Your task to perform on an android device: What's the weather going to be tomorrow? Image 0: 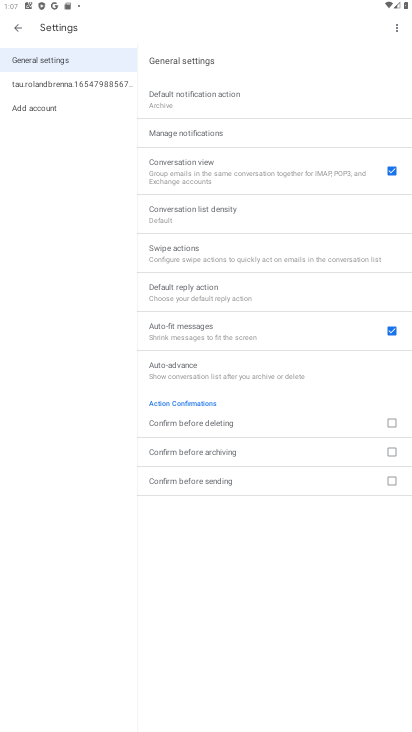
Step 0: press home button
Your task to perform on an android device: What's the weather going to be tomorrow? Image 1: 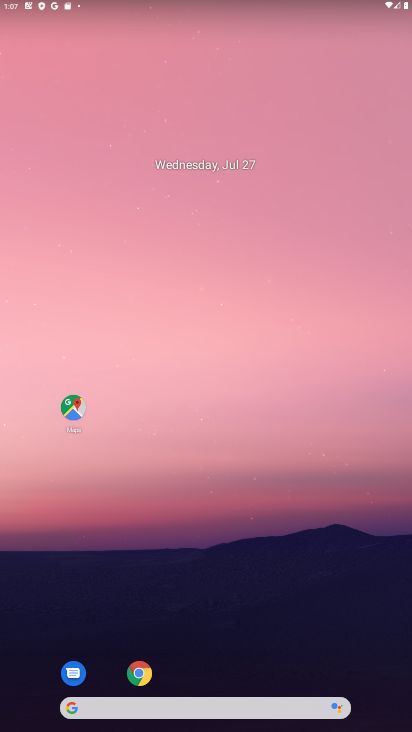
Step 1: click (152, 705)
Your task to perform on an android device: What's the weather going to be tomorrow? Image 2: 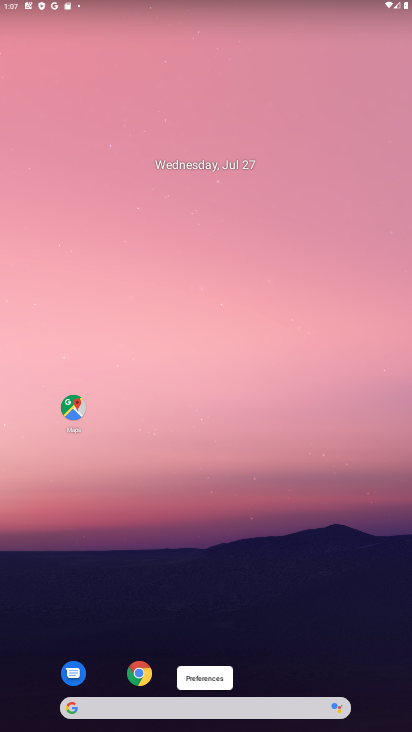
Step 2: click (152, 703)
Your task to perform on an android device: What's the weather going to be tomorrow? Image 3: 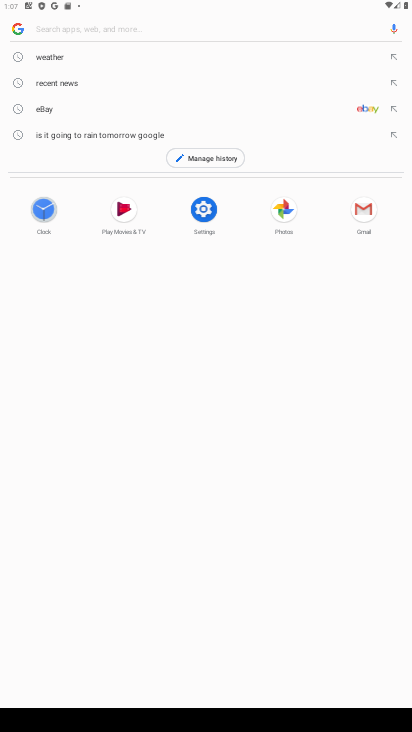
Step 3: click (48, 65)
Your task to perform on an android device: What's the weather going to be tomorrow? Image 4: 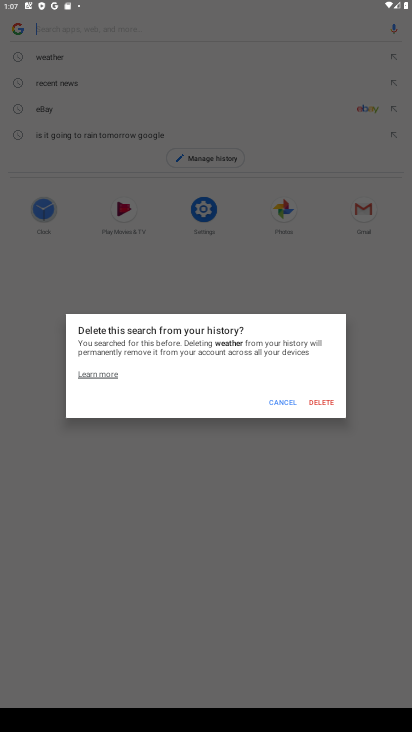
Step 4: click (278, 406)
Your task to perform on an android device: What's the weather going to be tomorrow? Image 5: 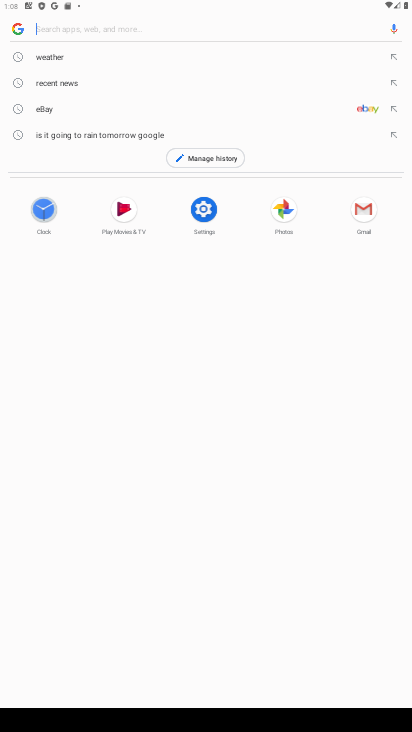
Step 5: click (53, 63)
Your task to perform on an android device: What's the weather going to be tomorrow? Image 6: 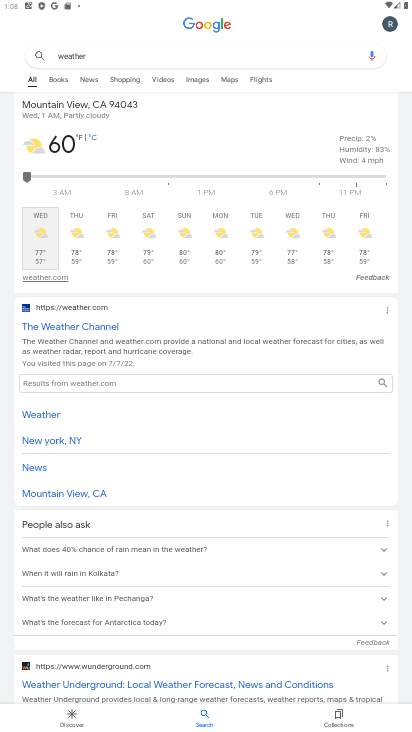
Step 6: click (74, 214)
Your task to perform on an android device: What's the weather going to be tomorrow? Image 7: 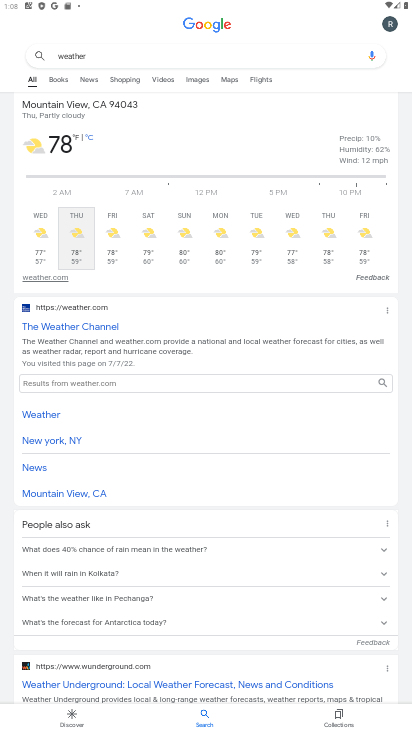
Step 7: task complete